Your task to perform on an android device: Open calendar and show me the fourth week of next month Image 0: 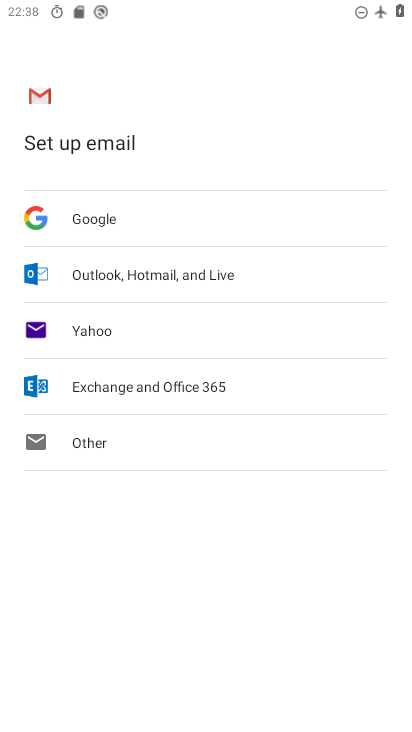
Step 0: press home button
Your task to perform on an android device: Open calendar and show me the fourth week of next month Image 1: 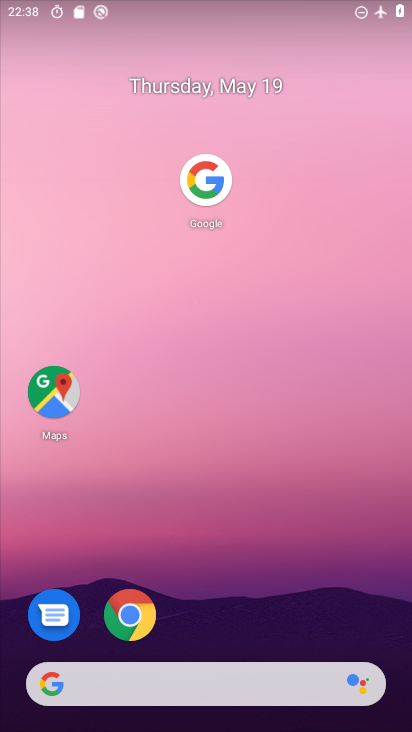
Step 1: drag from (228, 614) to (303, 110)
Your task to perform on an android device: Open calendar and show me the fourth week of next month Image 2: 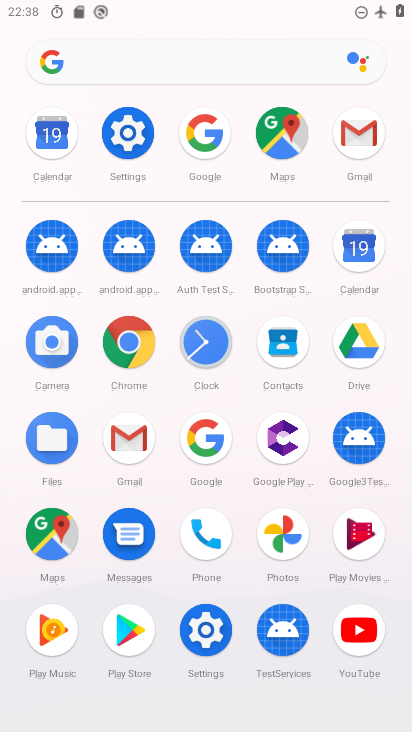
Step 2: click (362, 244)
Your task to perform on an android device: Open calendar and show me the fourth week of next month Image 3: 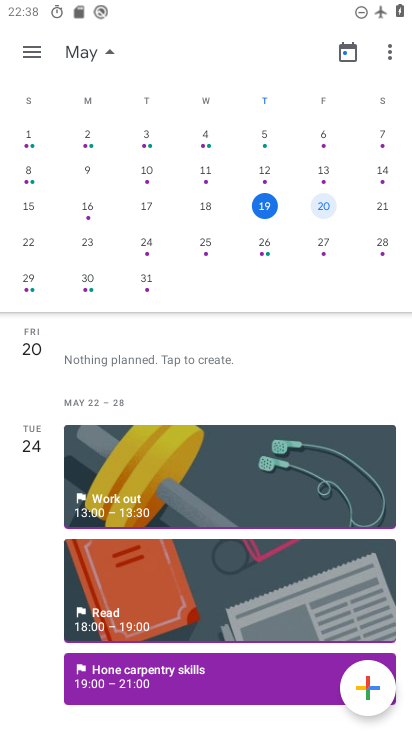
Step 3: drag from (350, 270) to (4, 264)
Your task to perform on an android device: Open calendar and show me the fourth week of next month Image 4: 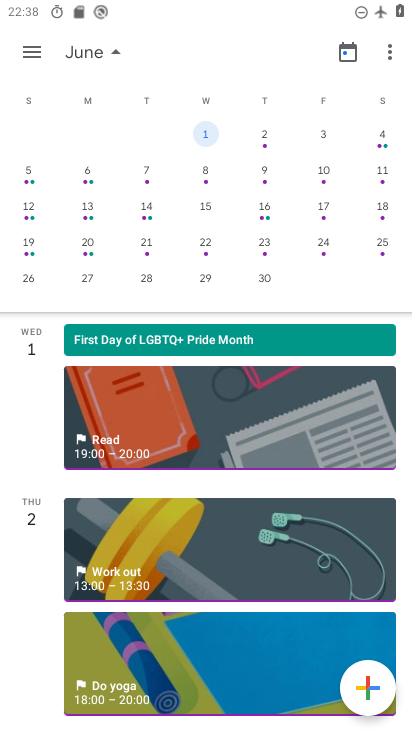
Step 4: click (204, 242)
Your task to perform on an android device: Open calendar and show me the fourth week of next month Image 5: 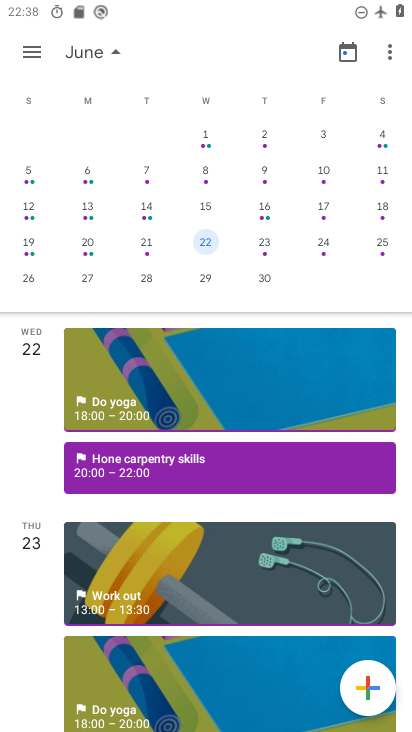
Step 5: task complete